Your task to perform on an android device: make emails show in primary in the gmail app Image 0: 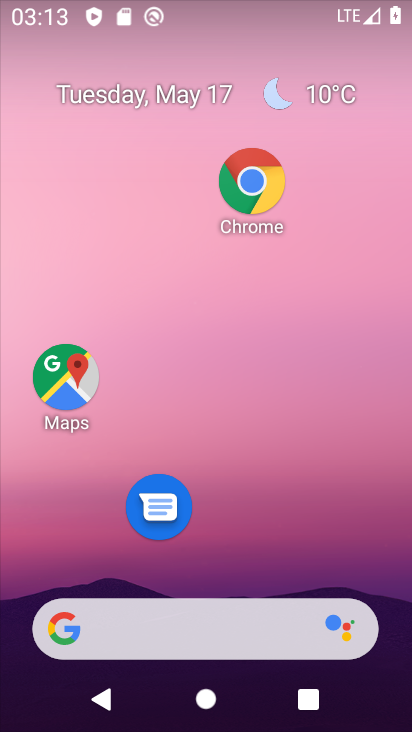
Step 0: drag from (232, 564) to (267, 122)
Your task to perform on an android device: make emails show in primary in the gmail app Image 1: 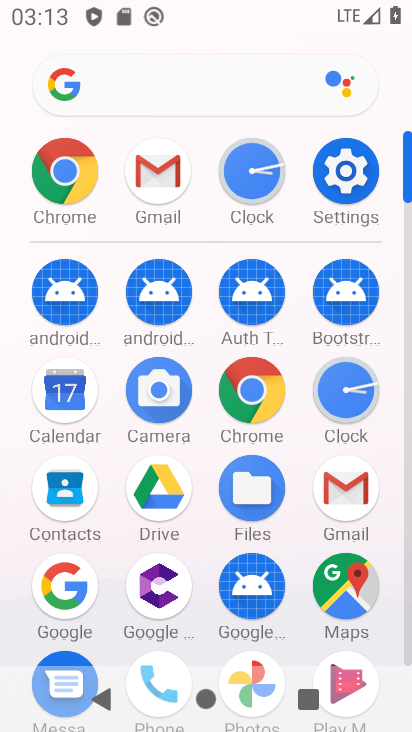
Step 1: click (331, 471)
Your task to perform on an android device: make emails show in primary in the gmail app Image 2: 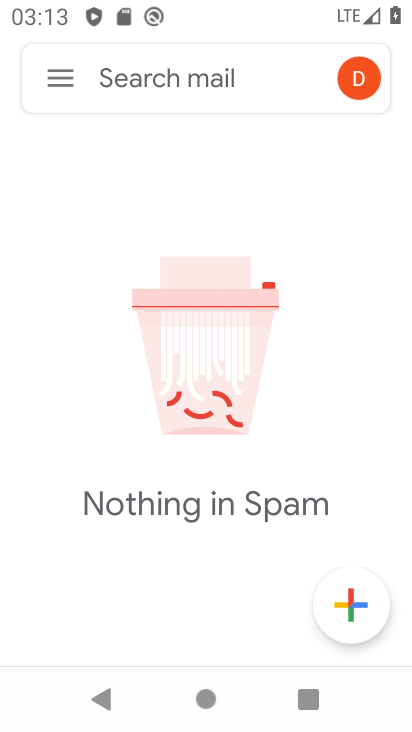
Step 2: click (54, 89)
Your task to perform on an android device: make emails show in primary in the gmail app Image 3: 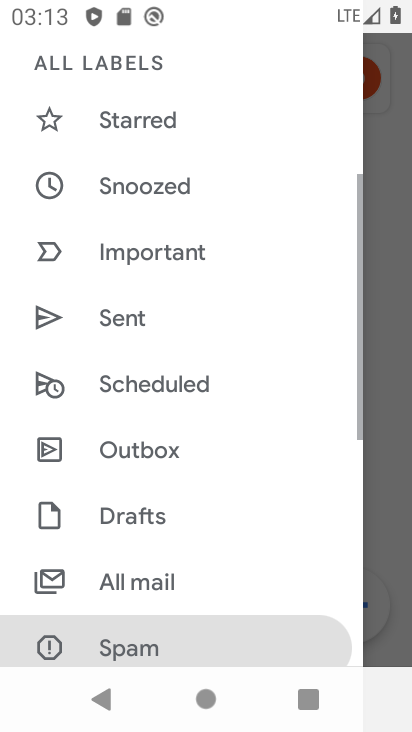
Step 3: task complete